Your task to perform on an android device: When is my next meeting? Image 0: 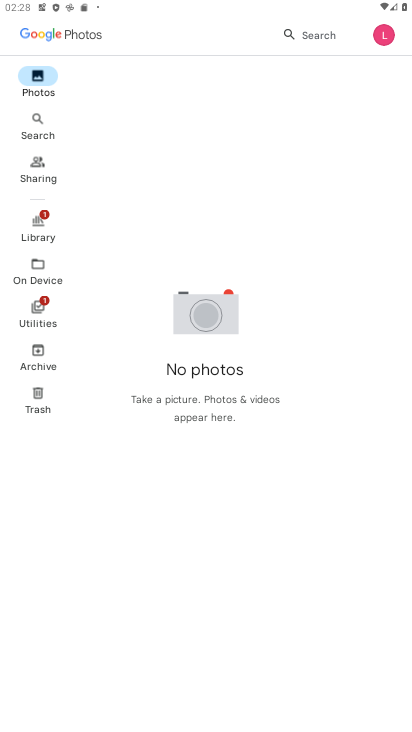
Step 0: press home button
Your task to perform on an android device: When is my next meeting? Image 1: 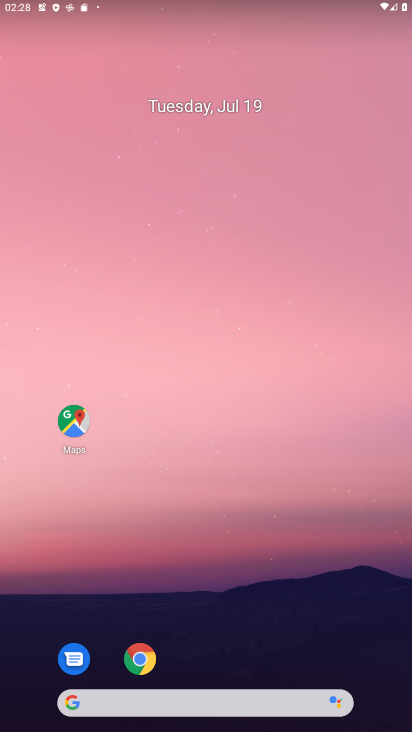
Step 1: drag from (220, 661) to (220, 127)
Your task to perform on an android device: When is my next meeting? Image 2: 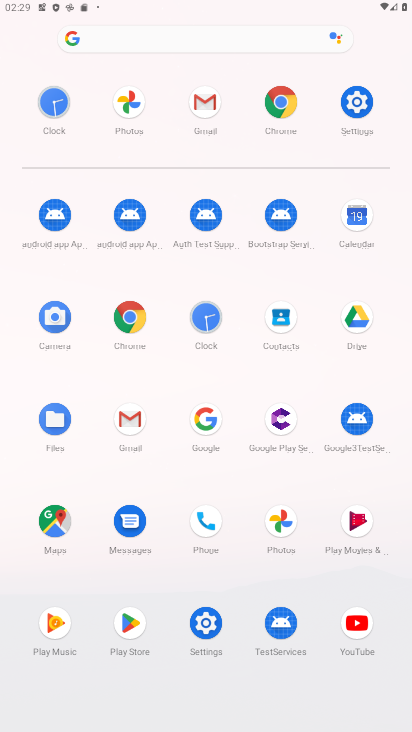
Step 2: click (370, 218)
Your task to perform on an android device: When is my next meeting? Image 3: 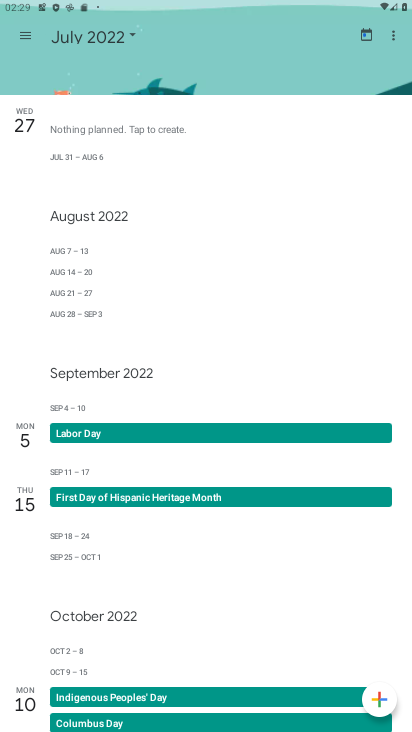
Step 3: task complete